Your task to perform on an android device: toggle airplane mode Image 0: 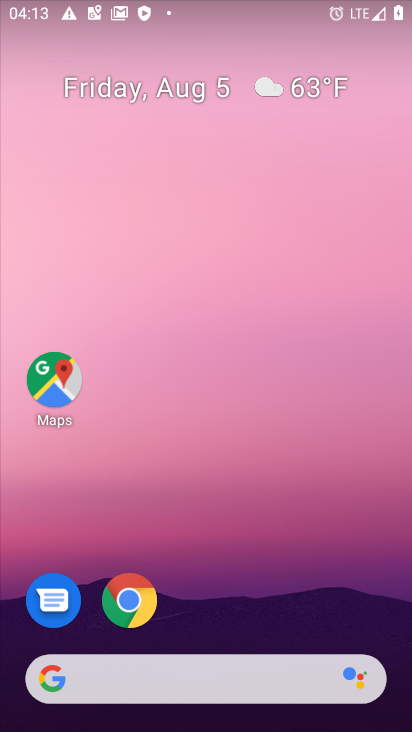
Step 0: drag from (195, 674) to (259, 255)
Your task to perform on an android device: toggle airplane mode Image 1: 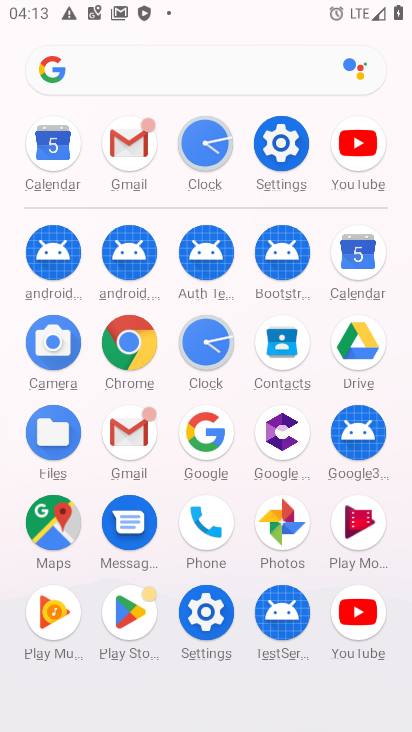
Step 1: click (280, 143)
Your task to perform on an android device: toggle airplane mode Image 2: 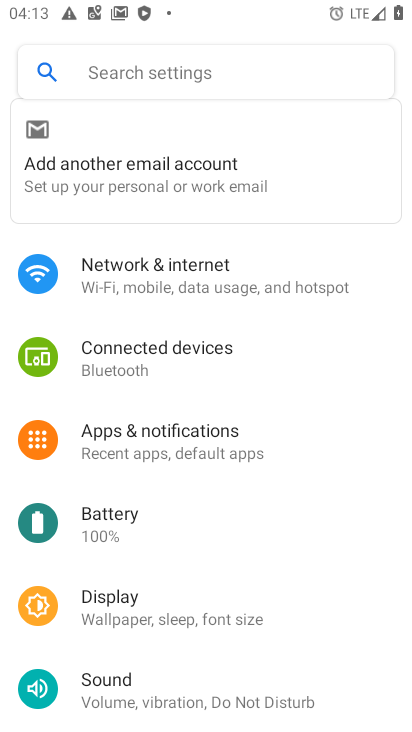
Step 2: click (221, 284)
Your task to perform on an android device: toggle airplane mode Image 3: 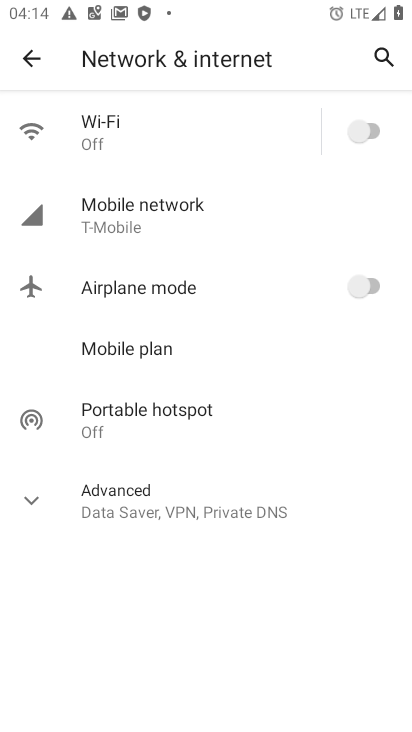
Step 3: click (370, 294)
Your task to perform on an android device: toggle airplane mode Image 4: 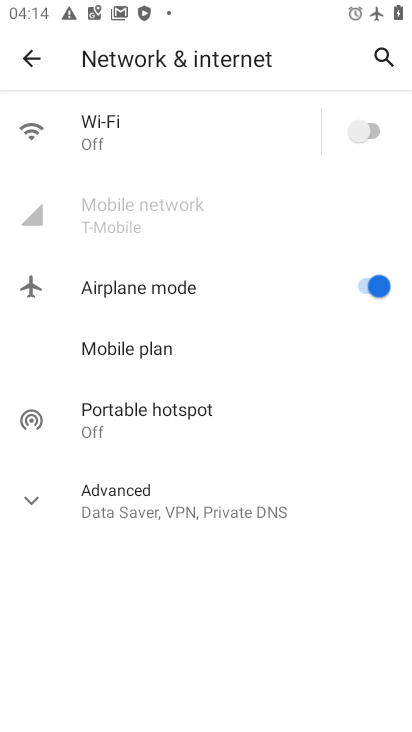
Step 4: task complete